Your task to perform on an android device: toggle improve location accuracy Image 0: 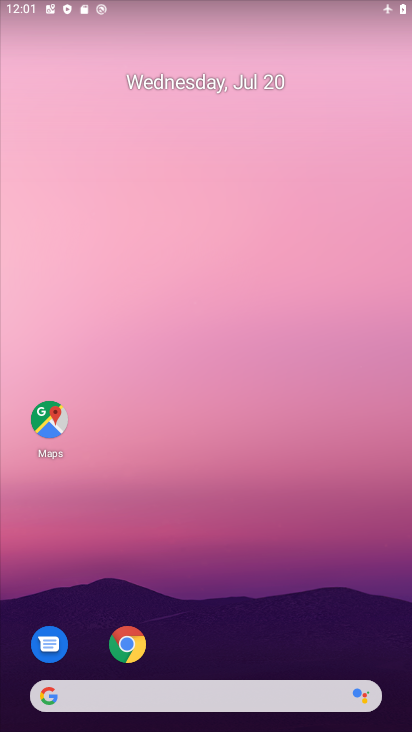
Step 0: press home button
Your task to perform on an android device: toggle improve location accuracy Image 1: 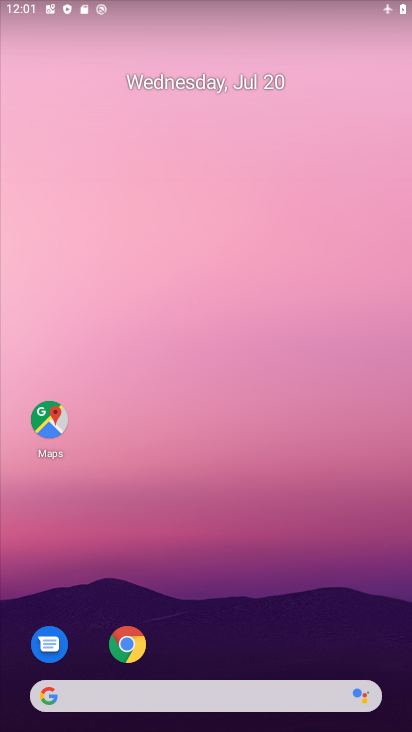
Step 1: drag from (370, 607) to (200, 60)
Your task to perform on an android device: toggle improve location accuracy Image 2: 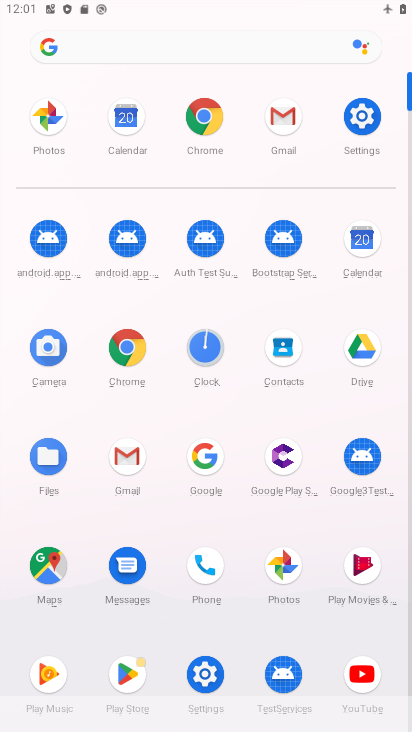
Step 2: click (37, 68)
Your task to perform on an android device: toggle improve location accuracy Image 3: 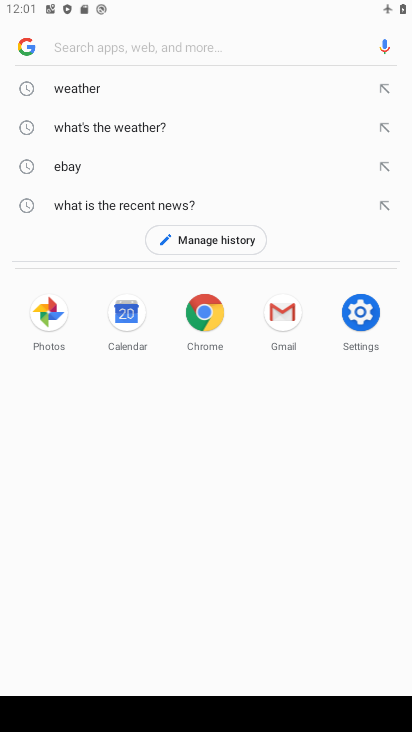
Step 3: press home button
Your task to perform on an android device: toggle improve location accuracy Image 4: 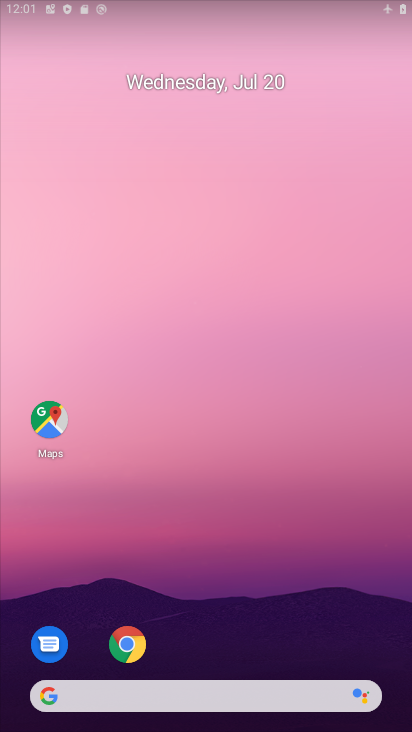
Step 4: drag from (207, 575) to (221, 15)
Your task to perform on an android device: toggle improve location accuracy Image 5: 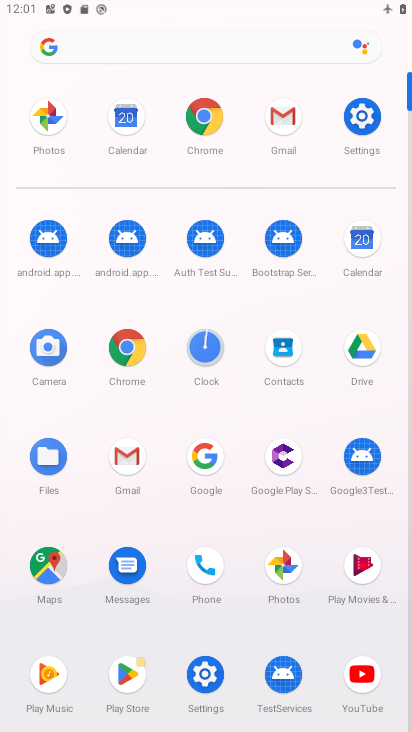
Step 5: click (204, 669)
Your task to perform on an android device: toggle improve location accuracy Image 6: 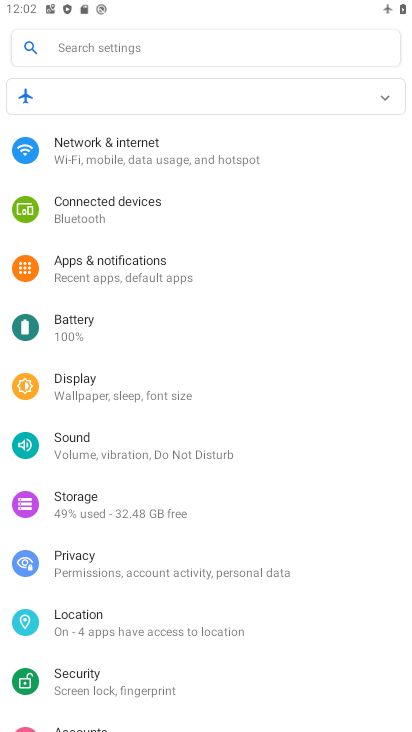
Step 6: click (106, 631)
Your task to perform on an android device: toggle improve location accuracy Image 7: 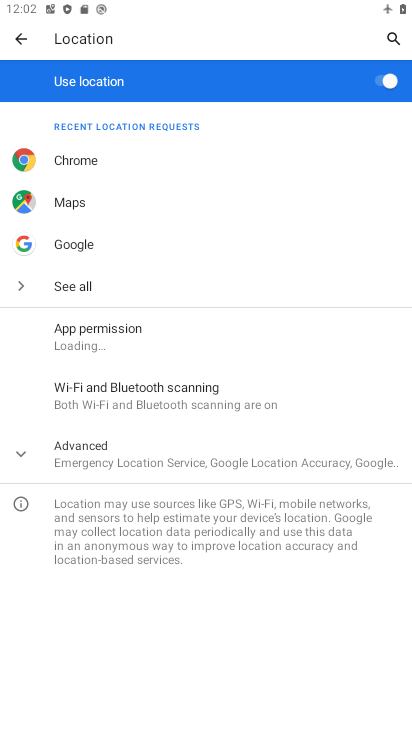
Step 7: click (126, 443)
Your task to perform on an android device: toggle improve location accuracy Image 8: 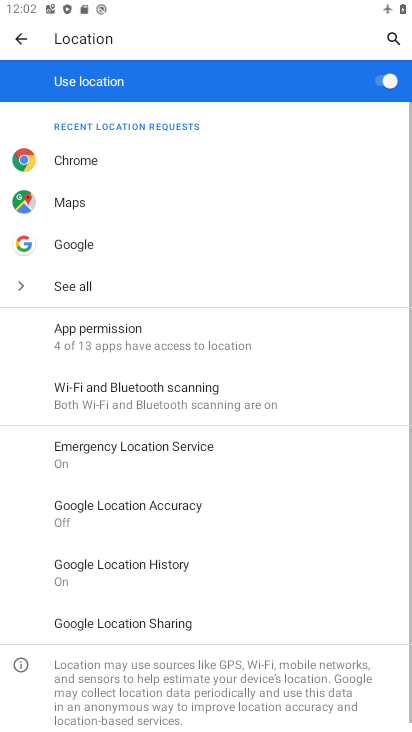
Step 8: click (122, 534)
Your task to perform on an android device: toggle improve location accuracy Image 9: 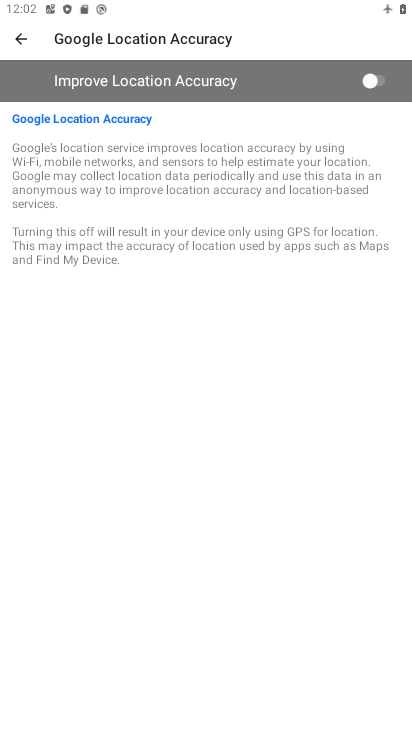
Step 9: click (329, 85)
Your task to perform on an android device: toggle improve location accuracy Image 10: 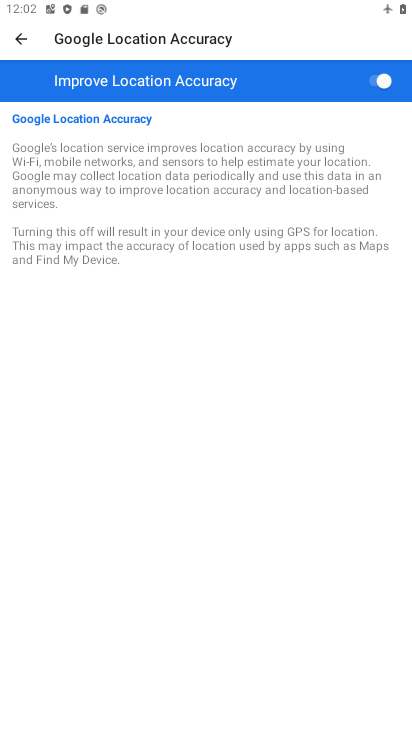
Step 10: task complete